Your task to perform on an android device: Open settings Image 0: 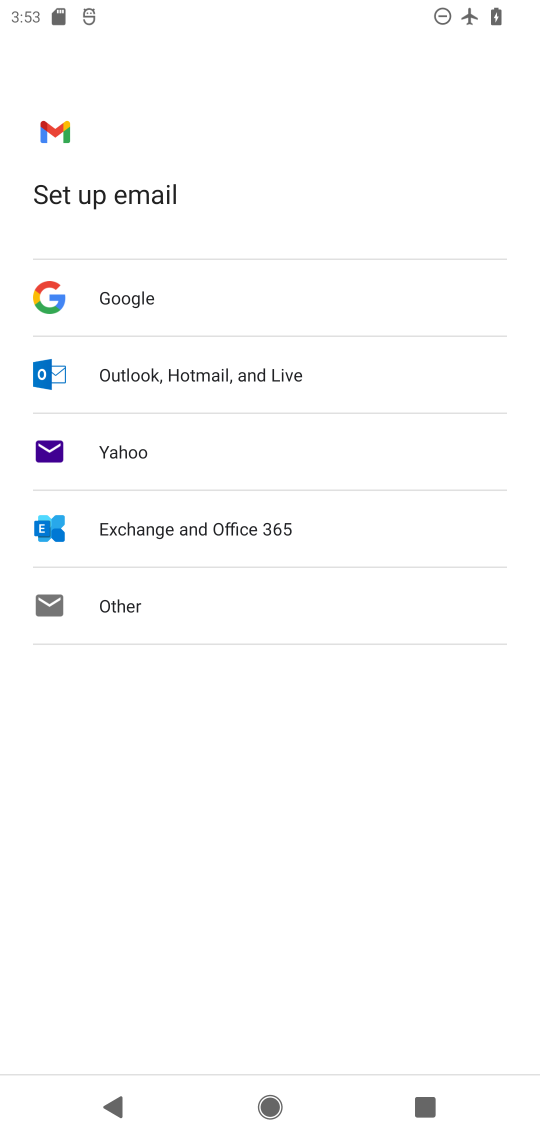
Step 0: press home button
Your task to perform on an android device: Open settings Image 1: 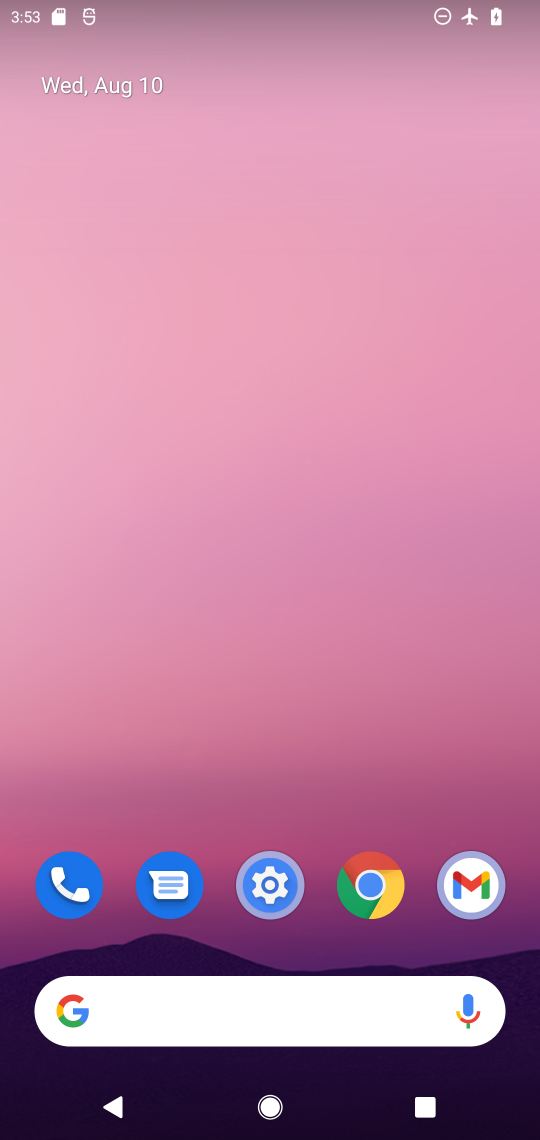
Step 1: click (271, 891)
Your task to perform on an android device: Open settings Image 2: 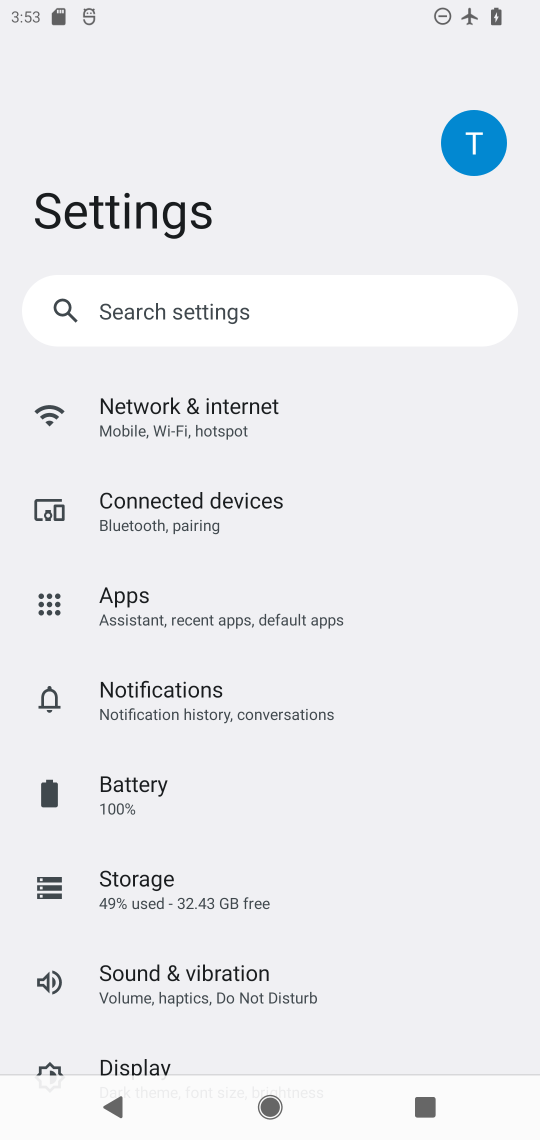
Step 2: task complete